Your task to perform on an android device: turn on priority inbox in the gmail app Image 0: 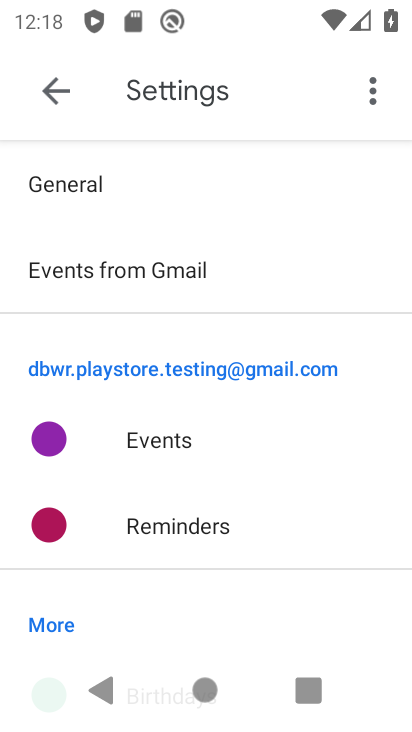
Step 0: press home button
Your task to perform on an android device: turn on priority inbox in the gmail app Image 1: 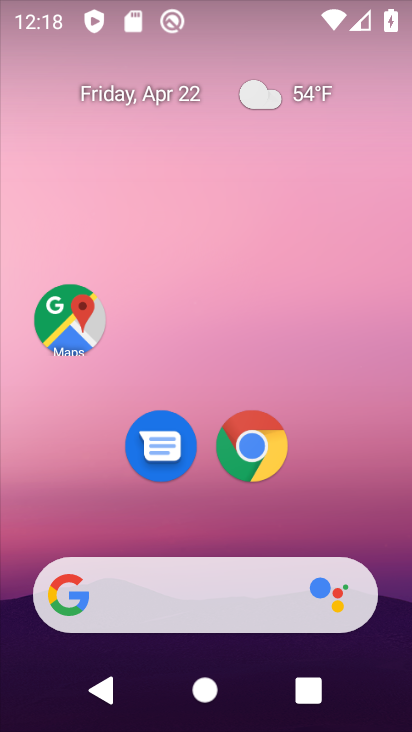
Step 1: drag from (378, 540) to (270, 141)
Your task to perform on an android device: turn on priority inbox in the gmail app Image 2: 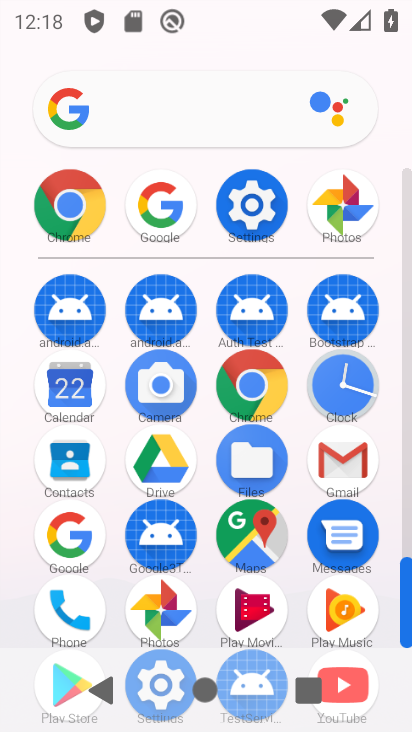
Step 2: click (334, 448)
Your task to perform on an android device: turn on priority inbox in the gmail app Image 3: 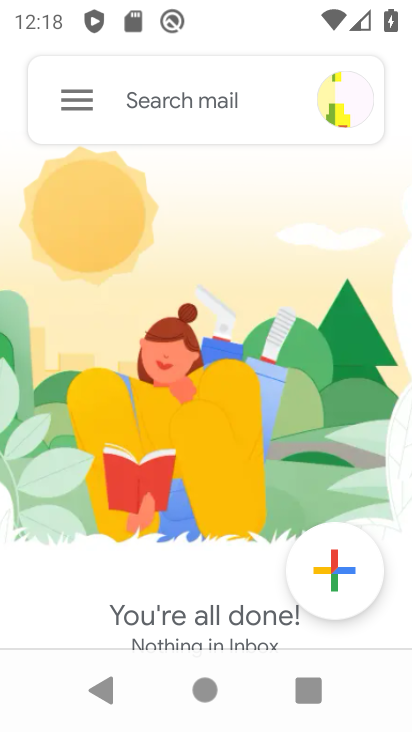
Step 3: click (80, 118)
Your task to perform on an android device: turn on priority inbox in the gmail app Image 4: 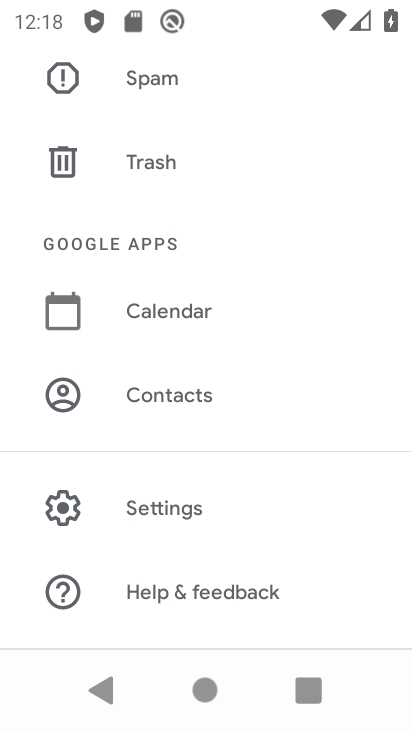
Step 4: click (231, 516)
Your task to perform on an android device: turn on priority inbox in the gmail app Image 5: 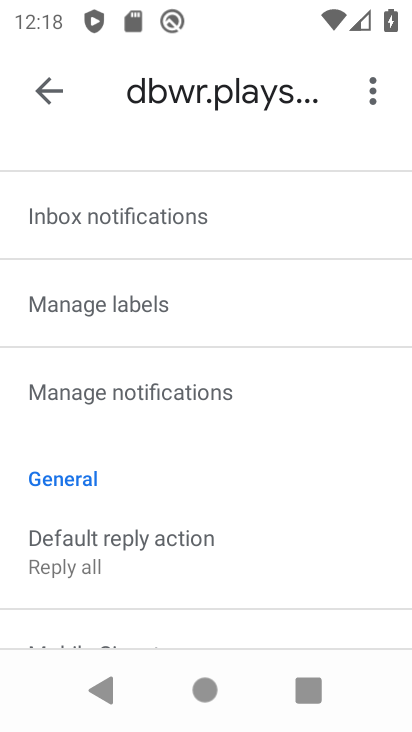
Step 5: drag from (258, 611) to (250, 182)
Your task to perform on an android device: turn on priority inbox in the gmail app Image 6: 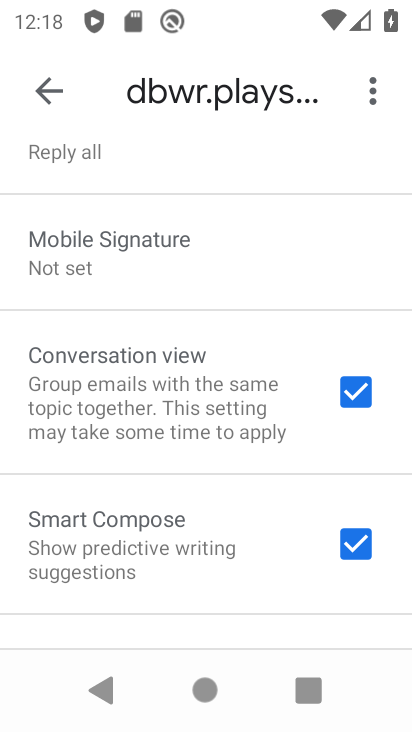
Step 6: drag from (211, 570) to (174, 699)
Your task to perform on an android device: turn on priority inbox in the gmail app Image 7: 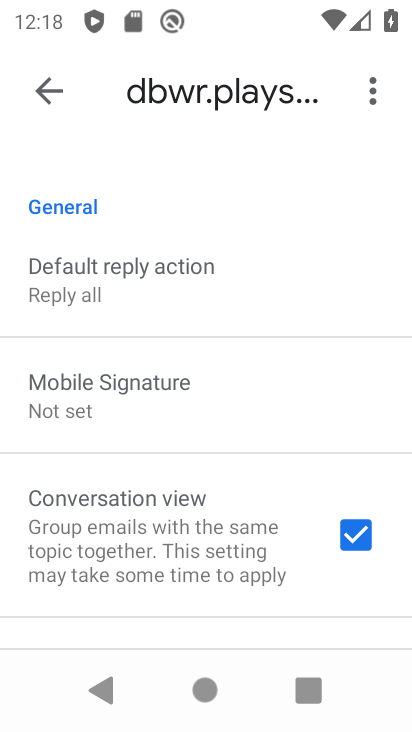
Step 7: drag from (265, 256) to (253, 702)
Your task to perform on an android device: turn on priority inbox in the gmail app Image 8: 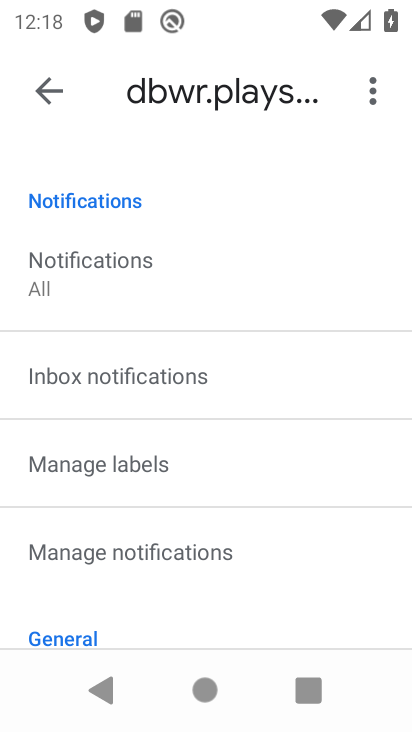
Step 8: drag from (249, 195) to (184, 719)
Your task to perform on an android device: turn on priority inbox in the gmail app Image 9: 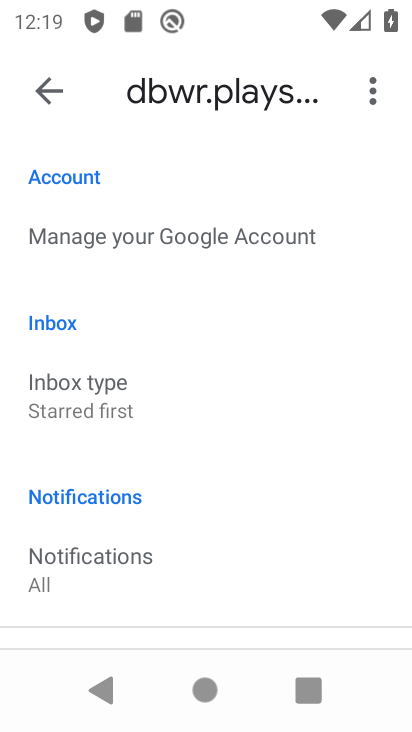
Step 9: click (183, 385)
Your task to perform on an android device: turn on priority inbox in the gmail app Image 10: 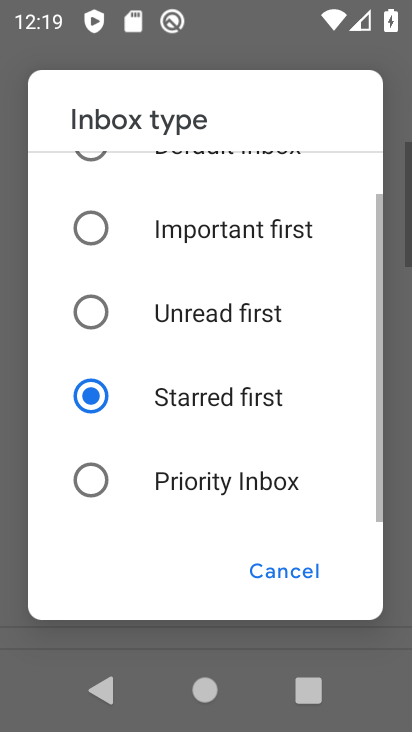
Step 10: click (218, 488)
Your task to perform on an android device: turn on priority inbox in the gmail app Image 11: 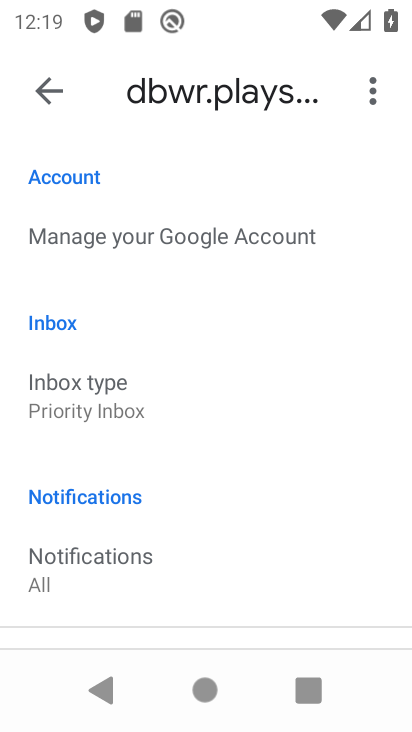
Step 11: task complete